Your task to perform on an android device: Go to Android settings Image 0: 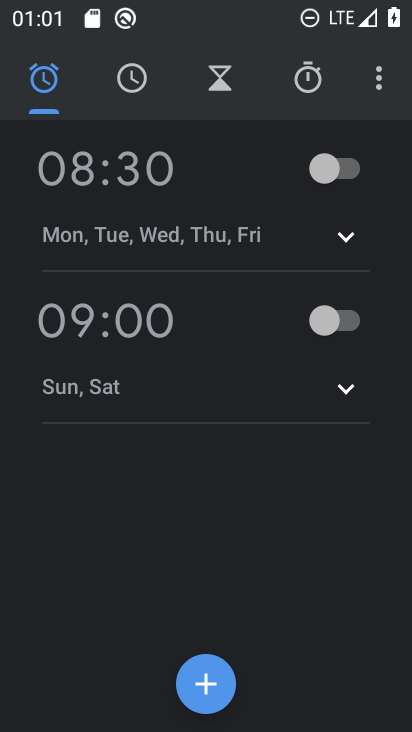
Step 0: press home button
Your task to perform on an android device: Go to Android settings Image 1: 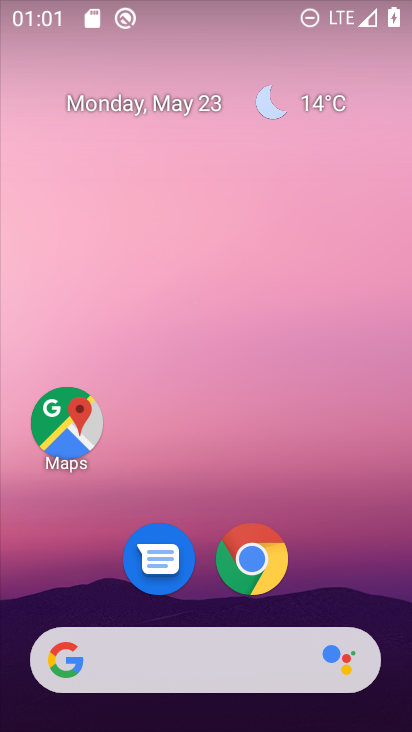
Step 1: drag from (339, 612) to (327, 720)
Your task to perform on an android device: Go to Android settings Image 2: 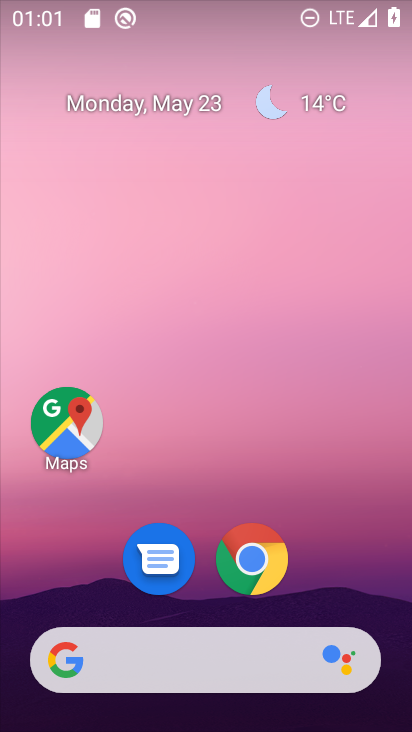
Step 2: drag from (337, 612) to (271, 1)
Your task to perform on an android device: Go to Android settings Image 3: 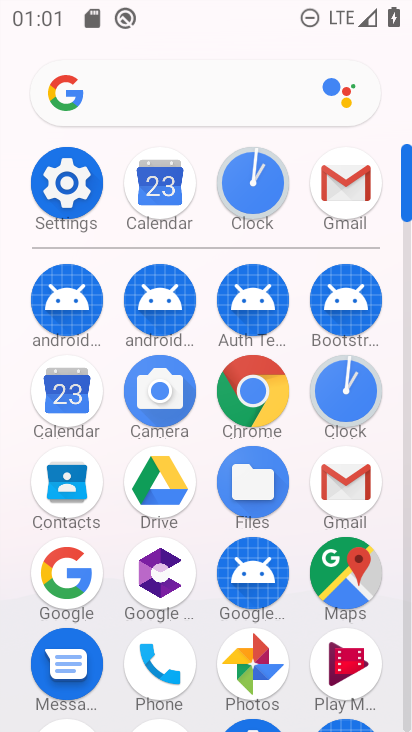
Step 3: click (71, 190)
Your task to perform on an android device: Go to Android settings Image 4: 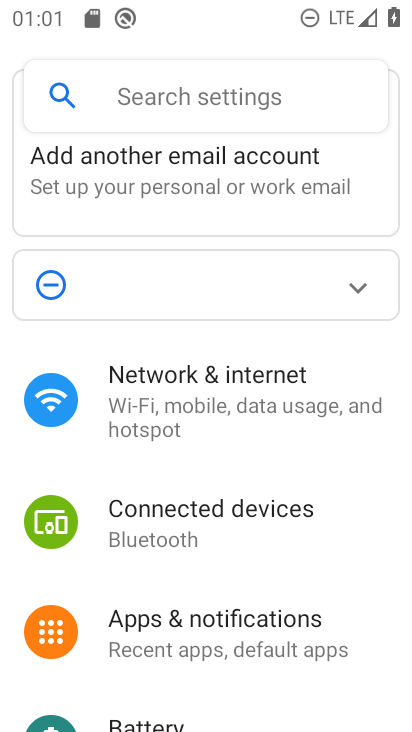
Step 4: task complete